Your task to perform on an android device: find photos in the google photos app Image 0: 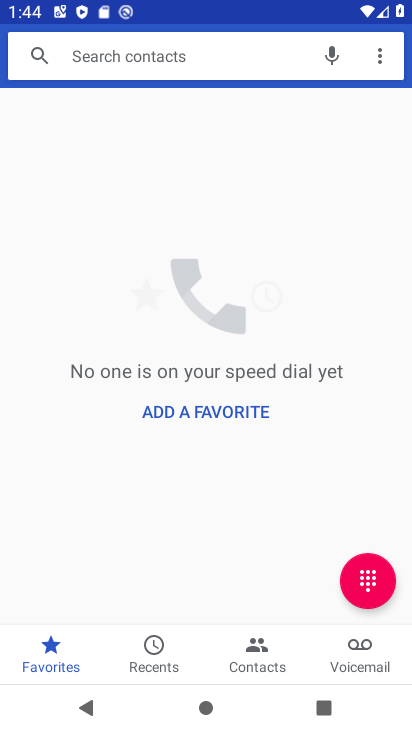
Step 0: press home button
Your task to perform on an android device: find photos in the google photos app Image 1: 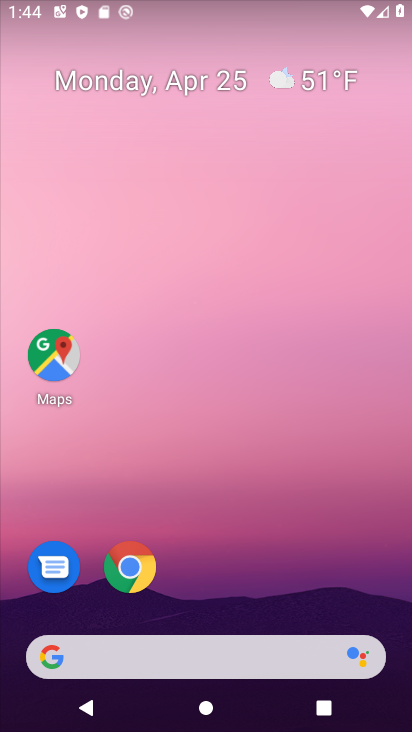
Step 1: drag from (214, 566) to (199, 78)
Your task to perform on an android device: find photos in the google photos app Image 2: 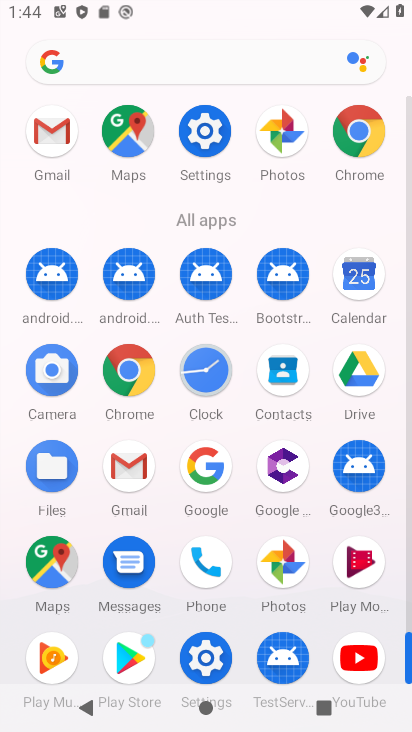
Step 2: click (264, 549)
Your task to perform on an android device: find photos in the google photos app Image 3: 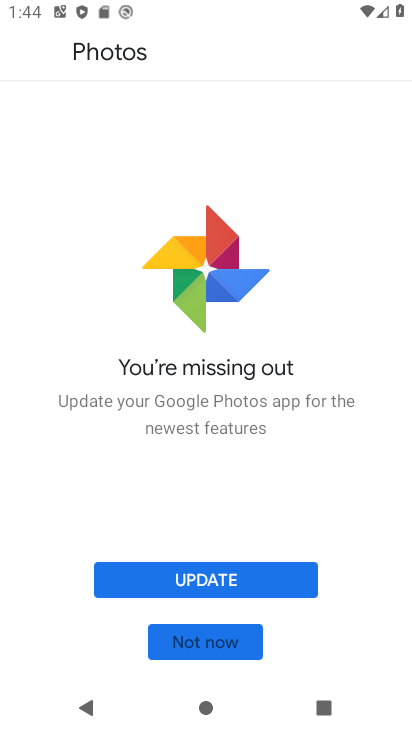
Step 3: click (182, 651)
Your task to perform on an android device: find photos in the google photos app Image 4: 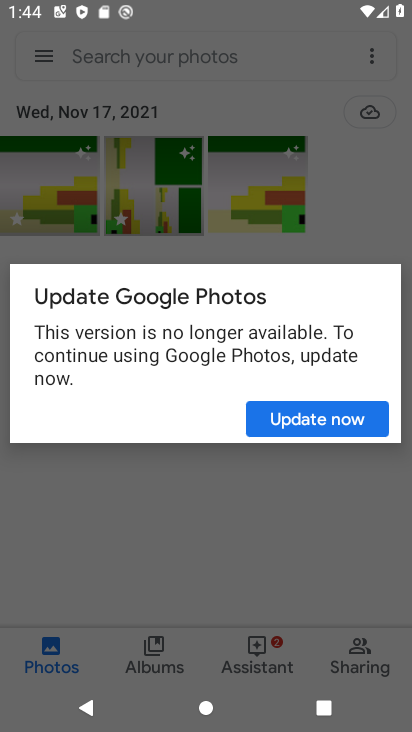
Step 4: click (305, 396)
Your task to perform on an android device: find photos in the google photos app Image 5: 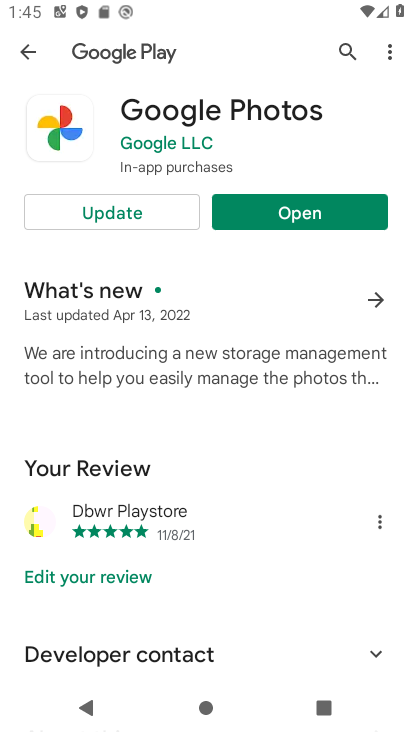
Step 5: click (163, 216)
Your task to perform on an android device: find photos in the google photos app Image 6: 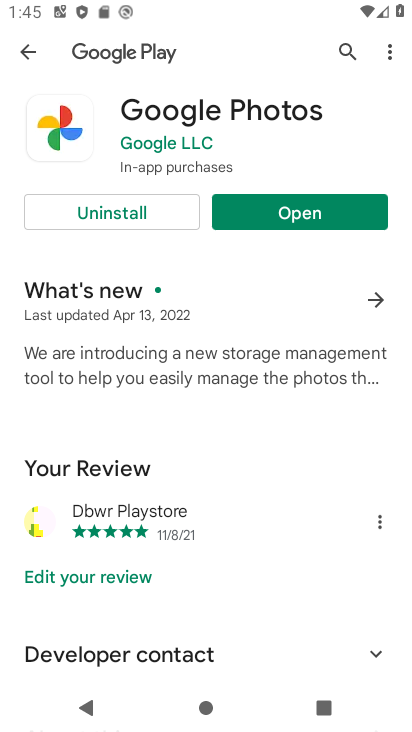
Step 6: click (279, 210)
Your task to perform on an android device: find photos in the google photos app Image 7: 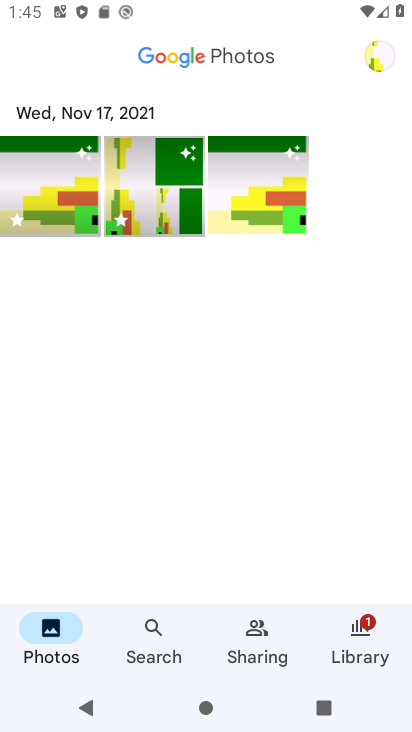
Step 7: task complete